Your task to perform on an android device: Open Google Maps Image 0: 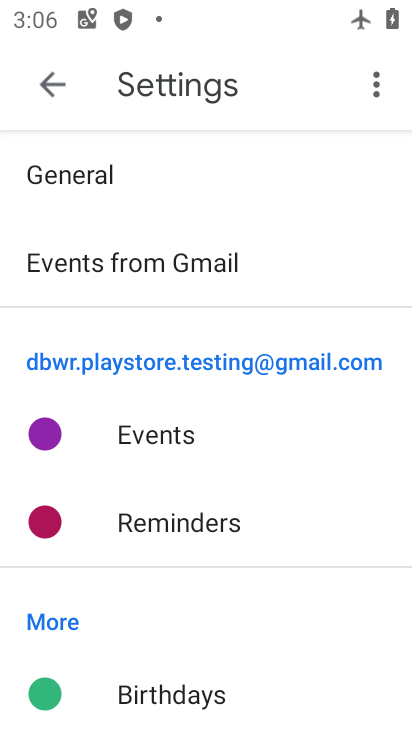
Step 0: press home button
Your task to perform on an android device: Open Google Maps Image 1: 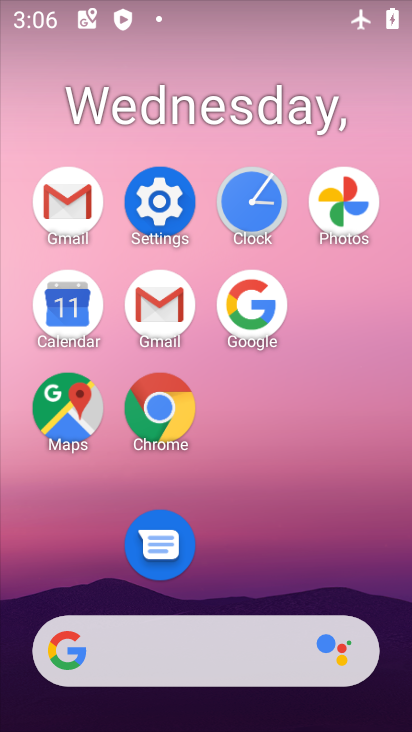
Step 1: click (64, 398)
Your task to perform on an android device: Open Google Maps Image 2: 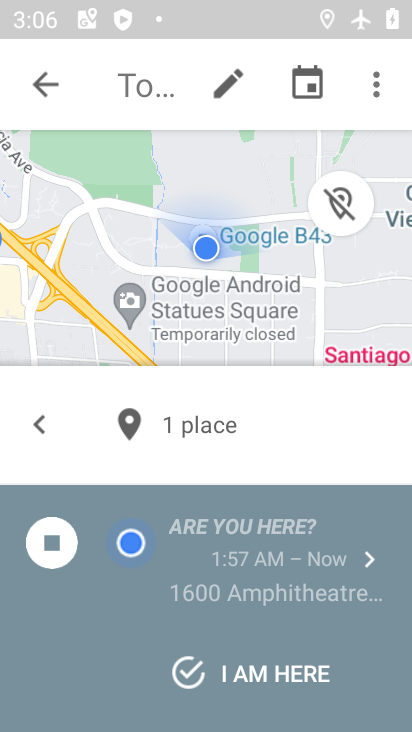
Step 2: task complete